Your task to perform on an android device: Open the web browser Image 0: 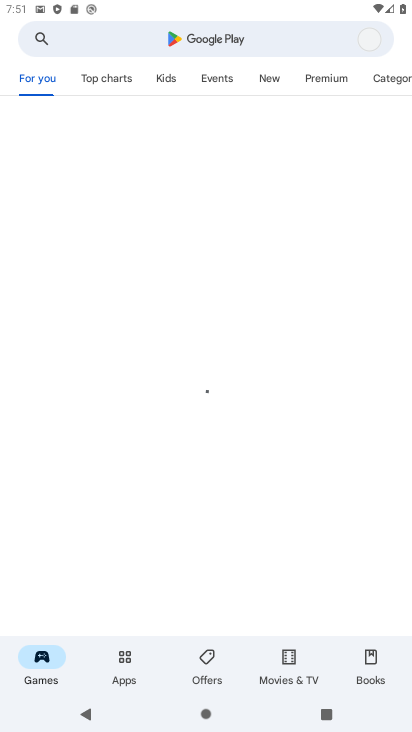
Step 0: press home button
Your task to perform on an android device: Open the web browser Image 1: 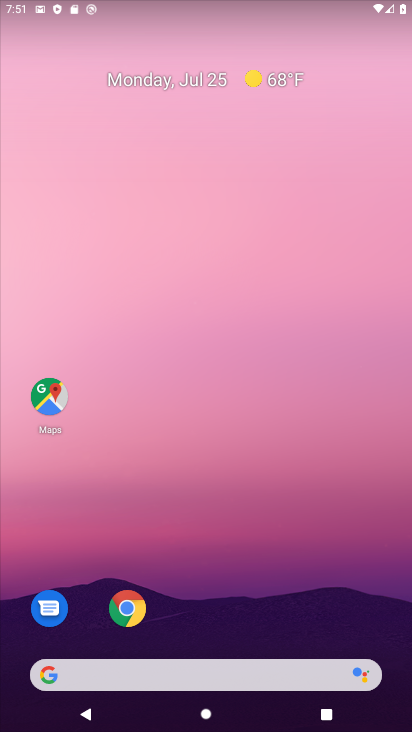
Step 1: click (125, 614)
Your task to perform on an android device: Open the web browser Image 2: 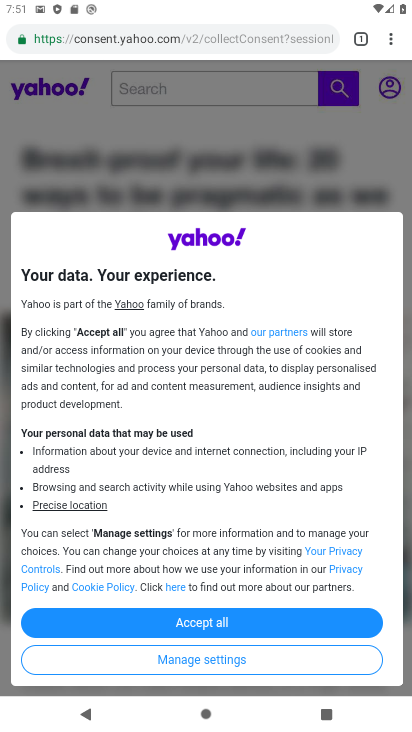
Step 2: task complete